Your task to perform on an android device: Turn off the flashlight Image 0: 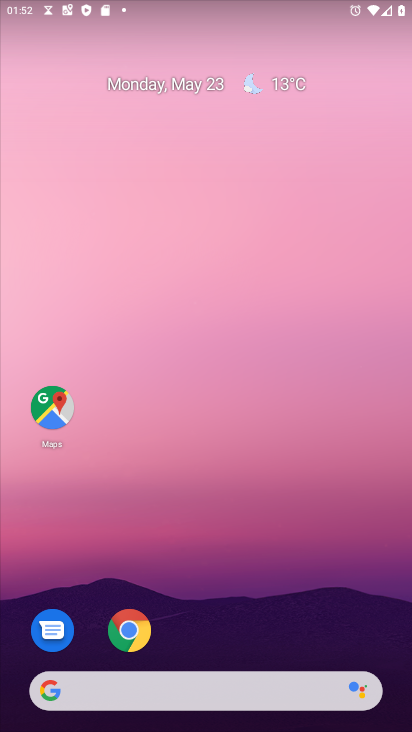
Step 0: drag from (298, 608) to (196, 97)
Your task to perform on an android device: Turn off the flashlight Image 1: 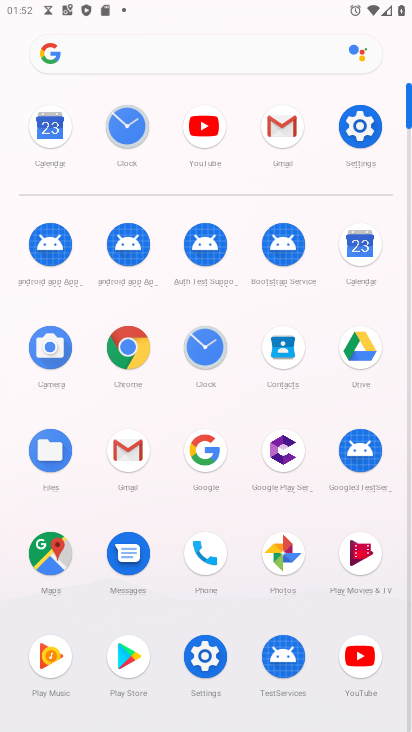
Step 1: task complete